Your task to perform on an android device: Open network settings Image 0: 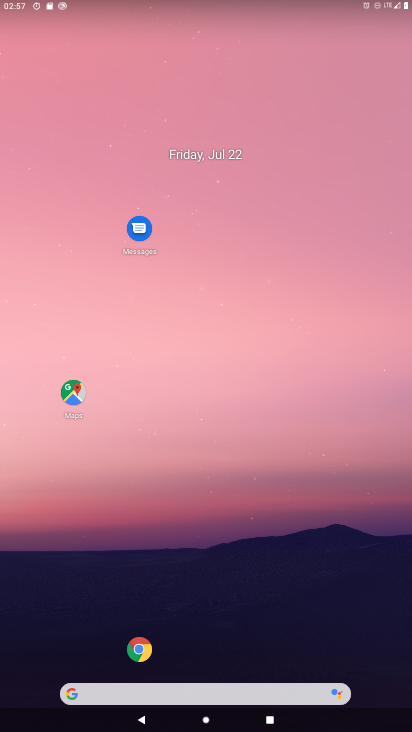
Step 0: drag from (68, 651) to (172, 190)
Your task to perform on an android device: Open network settings Image 1: 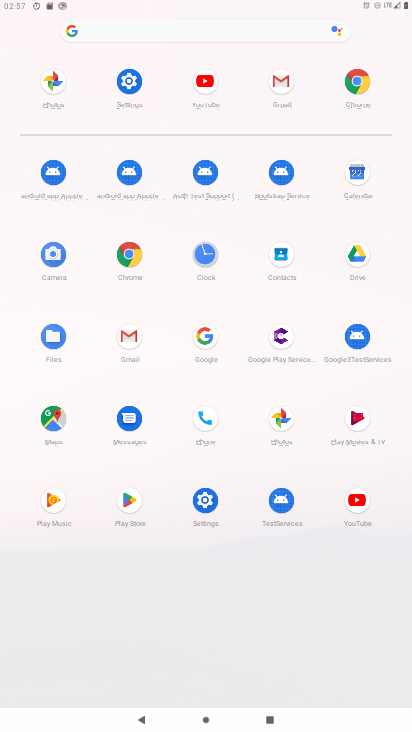
Step 1: click (202, 504)
Your task to perform on an android device: Open network settings Image 2: 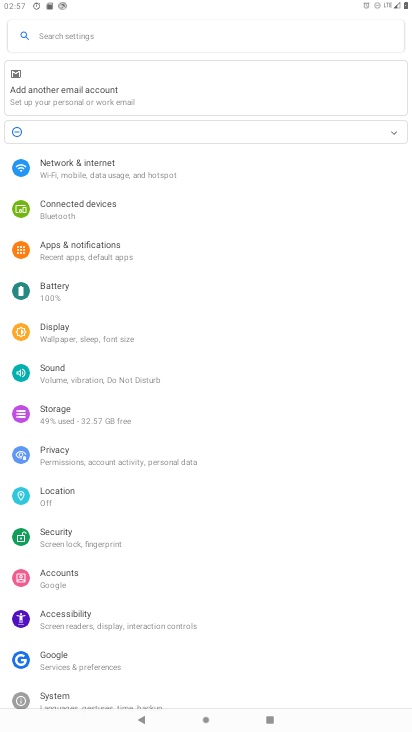
Step 2: click (85, 168)
Your task to perform on an android device: Open network settings Image 3: 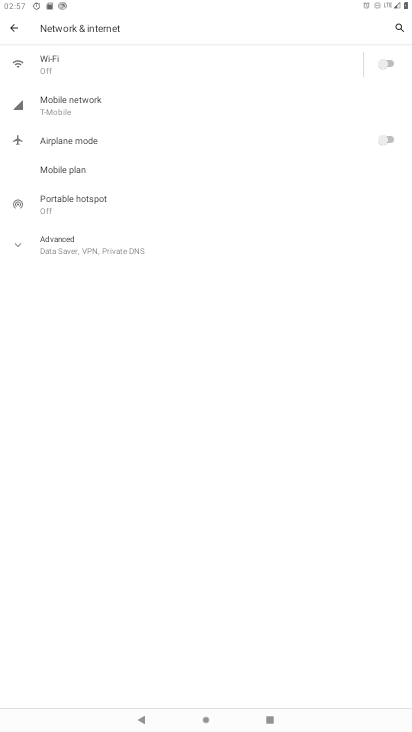
Step 3: click (67, 110)
Your task to perform on an android device: Open network settings Image 4: 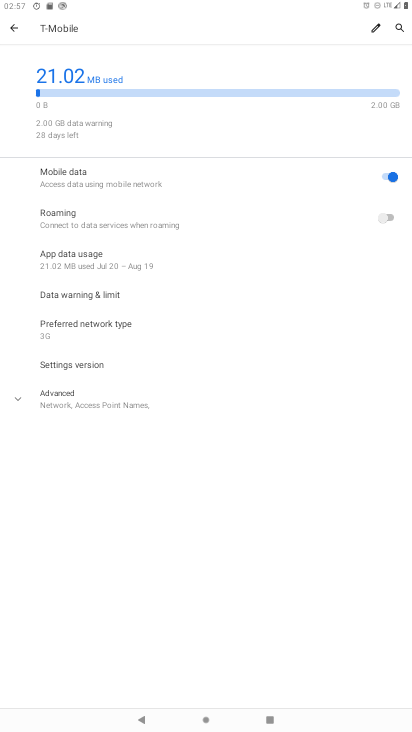
Step 4: click (4, 19)
Your task to perform on an android device: Open network settings Image 5: 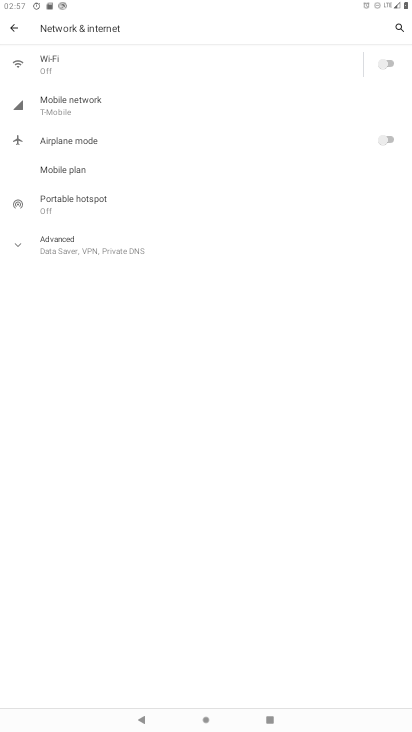
Step 5: task complete